Your task to perform on an android device: Open sound settings Image 0: 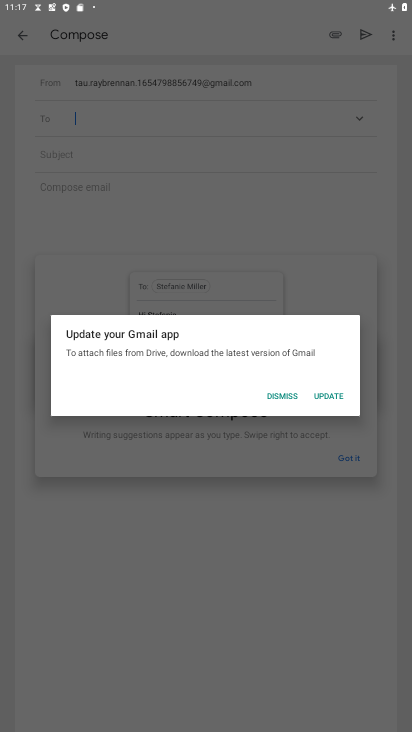
Step 0: press home button
Your task to perform on an android device: Open sound settings Image 1: 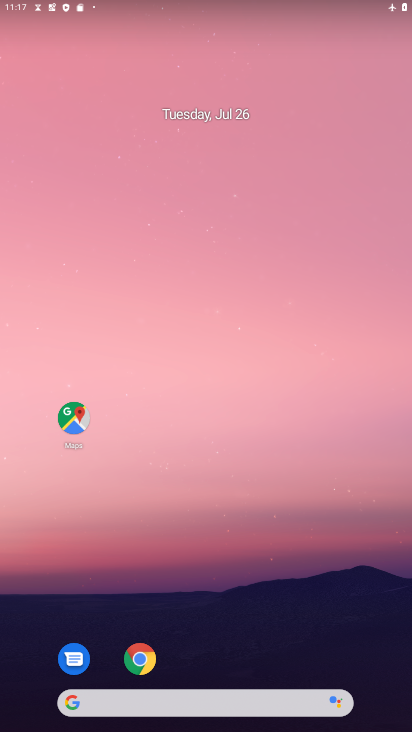
Step 1: drag from (196, 697) to (245, 2)
Your task to perform on an android device: Open sound settings Image 2: 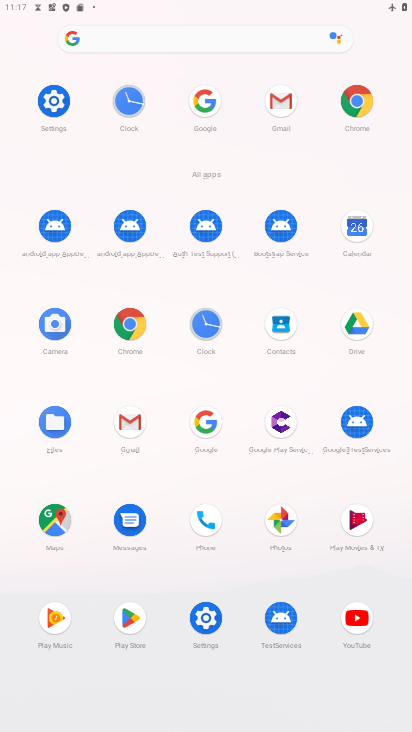
Step 2: click (55, 99)
Your task to perform on an android device: Open sound settings Image 3: 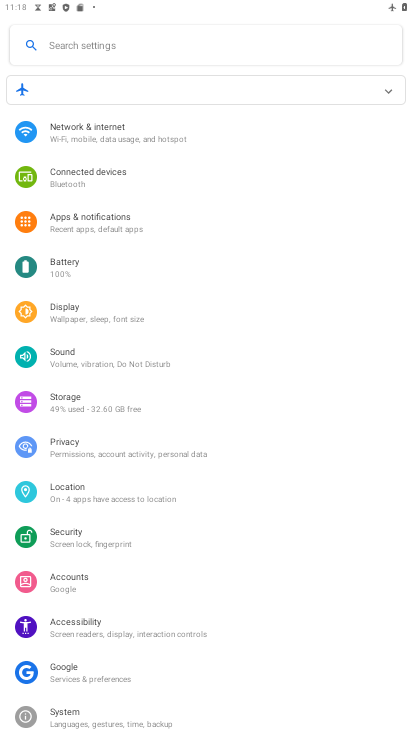
Step 3: click (66, 358)
Your task to perform on an android device: Open sound settings Image 4: 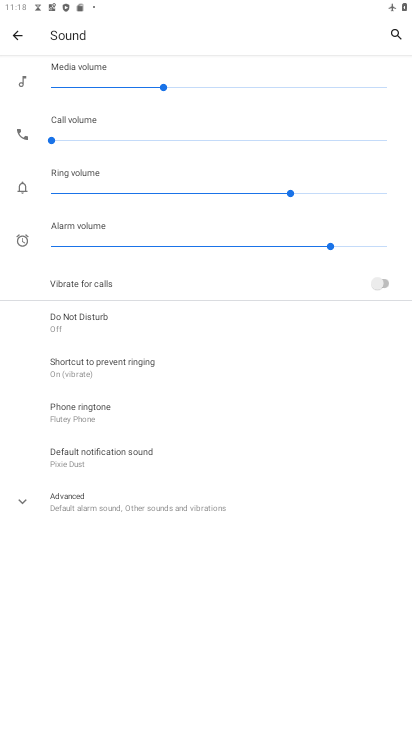
Step 4: task complete